Your task to perform on an android device: clear all cookies in the chrome app Image 0: 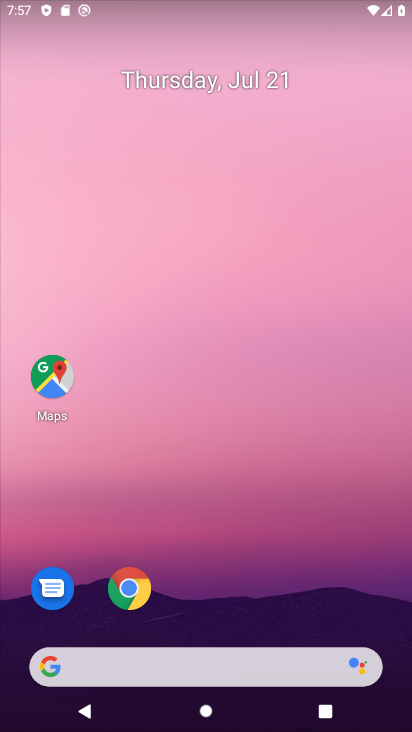
Step 0: drag from (204, 415) to (194, 3)
Your task to perform on an android device: clear all cookies in the chrome app Image 1: 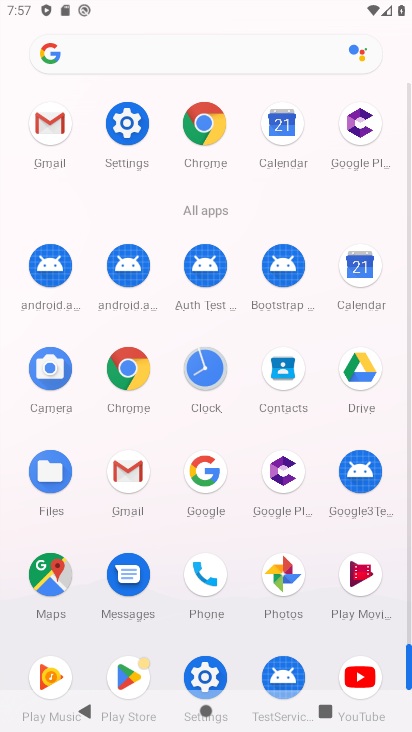
Step 1: click (203, 124)
Your task to perform on an android device: clear all cookies in the chrome app Image 2: 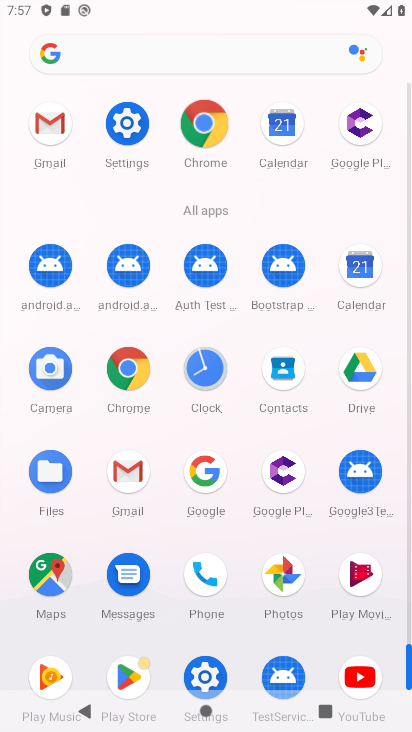
Step 2: click (203, 122)
Your task to perform on an android device: clear all cookies in the chrome app Image 3: 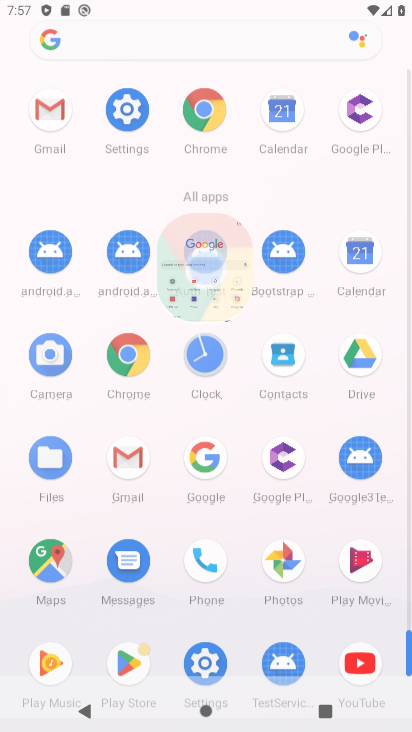
Step 3: click (203, 121)
Your task to perform on an android device: clear all cookies in the chrome app Image 4: 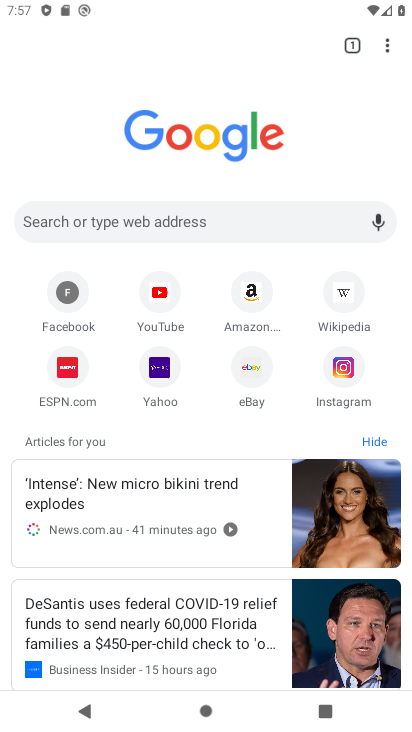
Step 4: drag from (383, 41) to (204, 388)
Your task to perform on an android device: clear all cookies in the chrome app Image 5: 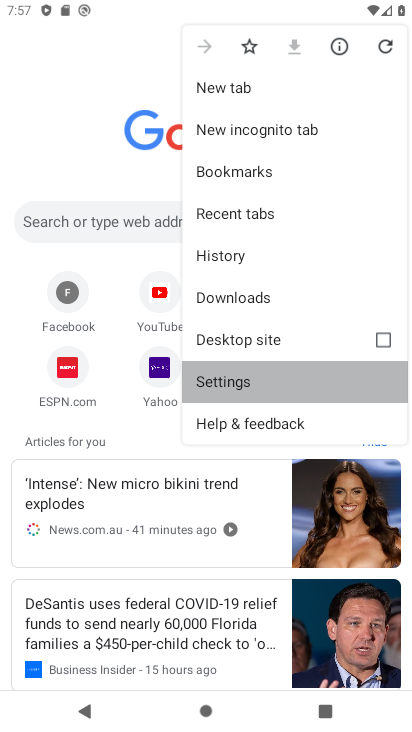
Step 5: click (206, 388)
Your task to perform on an android device: clear all cookies in the chrome app Image 6: 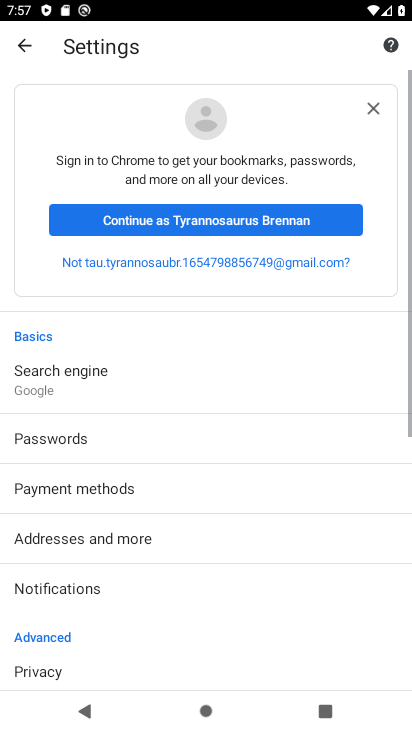
Step 6: drag from (88, 610) to (112, 265)
Your task to perform on an android device: clear all cookies in the chrome app Image 7: 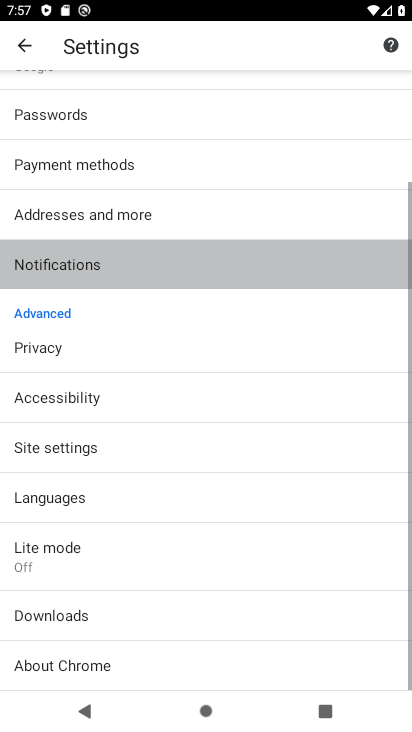
Step 7: drag from (78, 616) to (106, 290)
Your task to perform on an android device: clear all cookies in the chrome app Image 8: 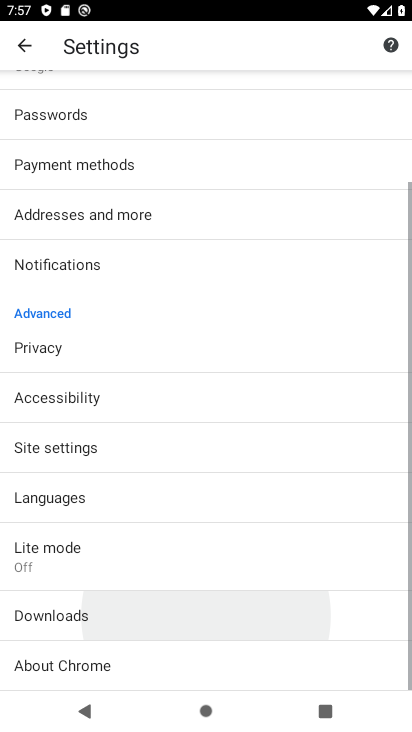
Step 8: drag from (132, 594) to (146, 361)
Your task to perform on an android device: clear all cookies in the chrome app Image 9: 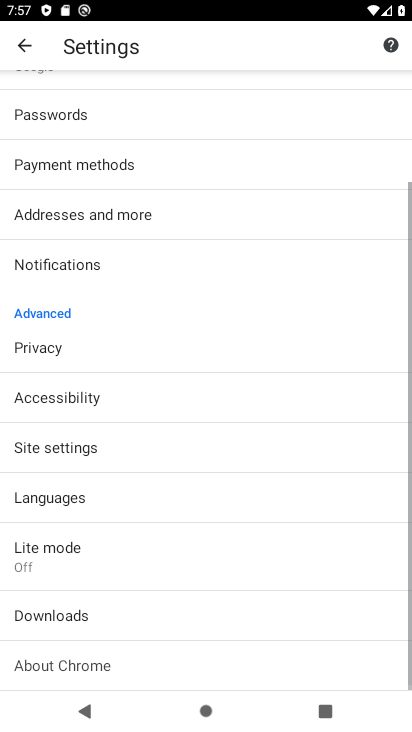
Step 9: drag from (127, 568) to (105, 326)
Your task to perform on an android device: clear all cookies in the chrome app Image 10: 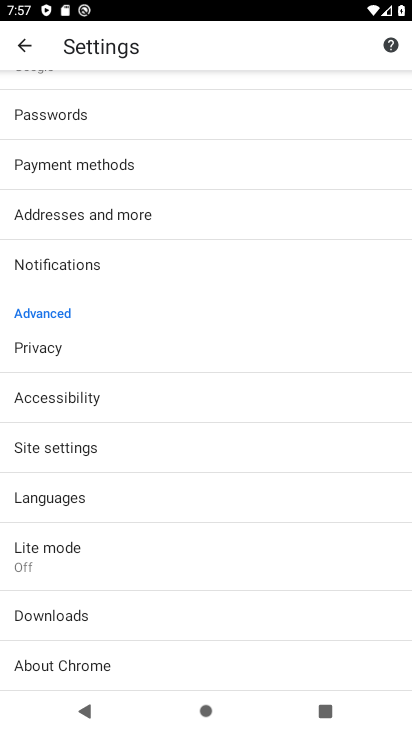
Step 10: click (54, 451)
Your task to perform on an android device: clear all cookies in the chrome app Image 11: 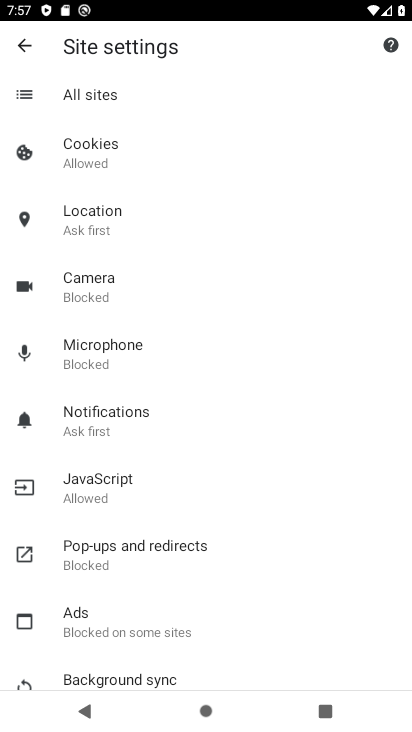
Step 11: click (84, 154)
Your task to perform on an android device: clear all cookies in the chrome app Image 12: 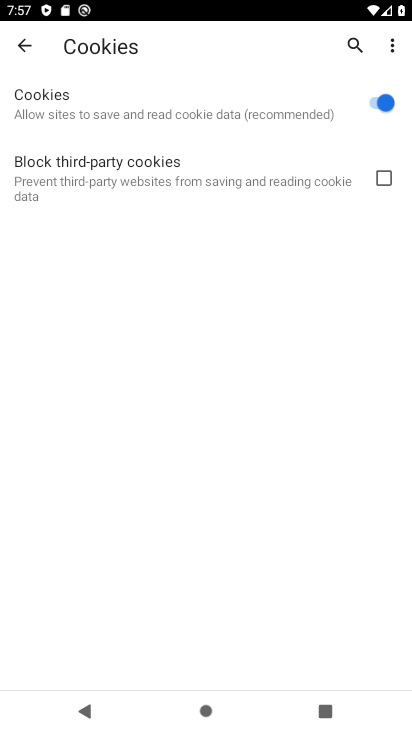
Step 12: click (377, 106)
Your task to perform on an android device: clear all cookies in the chrome app Image 13: 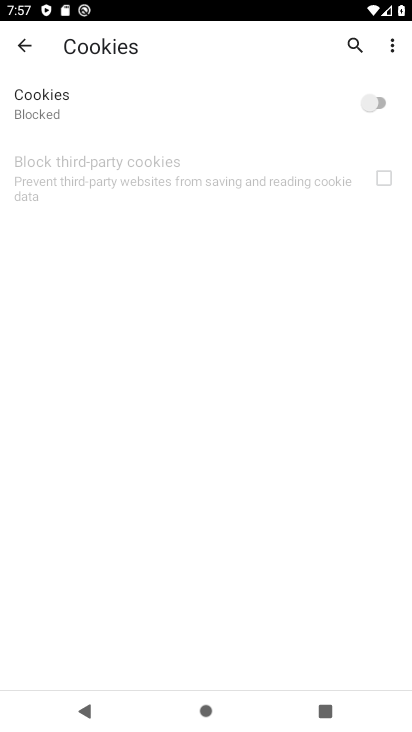
Step 13: task complete